Your task to perform on an android device: What's the top post on reddit right now? Image 0: 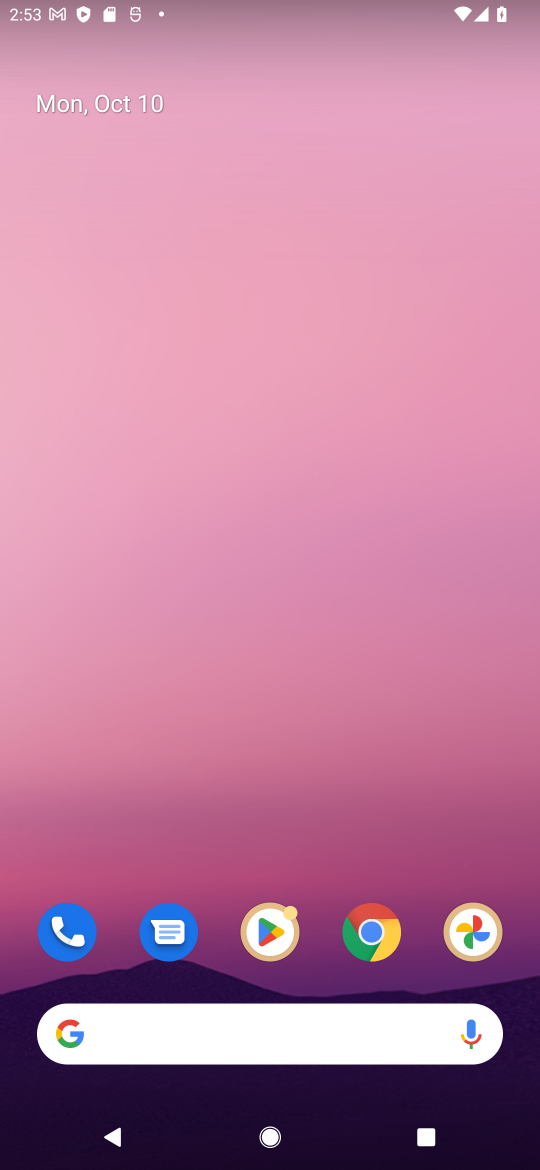
Step 0: press home button
Your task to perform on an android device: What's the top post on reddit right now? Image 1: 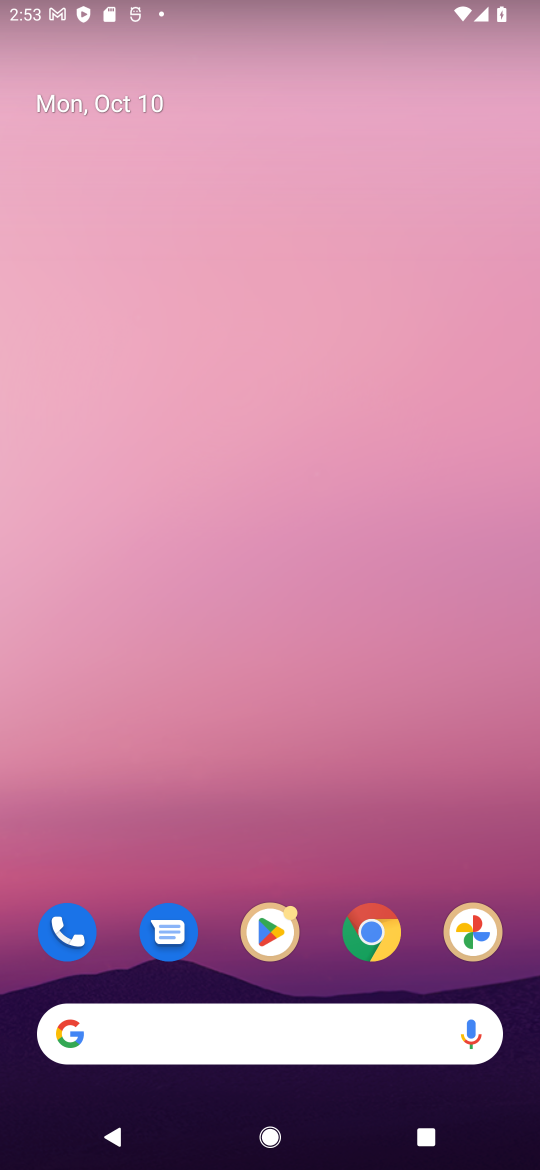
Step 1: click (343, 1032)
Your task to perform on an android device: What's the top post on reddit right now? Image 2: 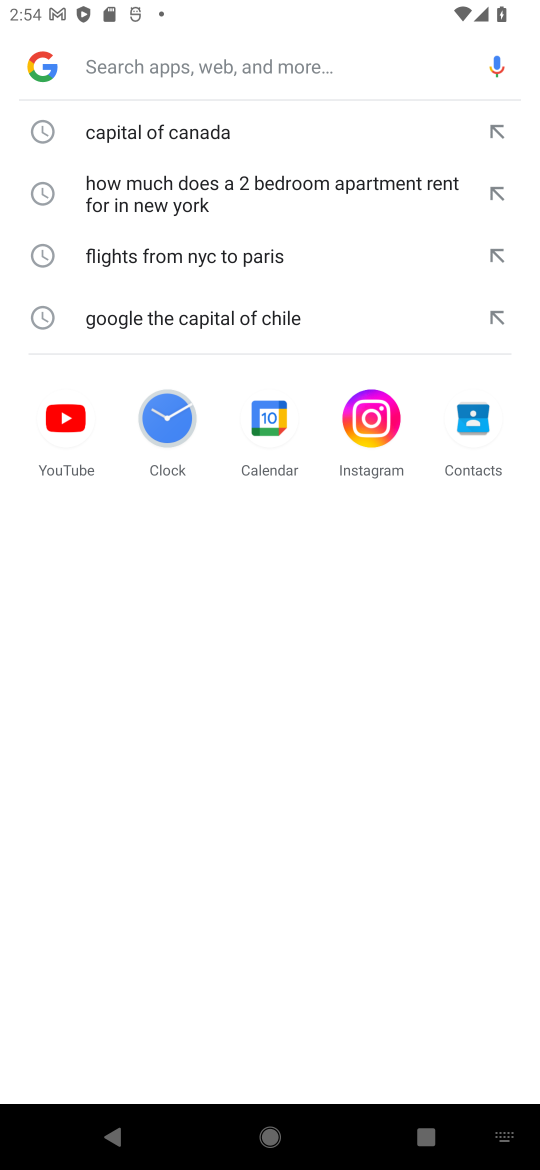
Step 2: type "What's the top post on reddit right now"
Your task to perform on an android device: What's the top post on reddit right now? Image 3: 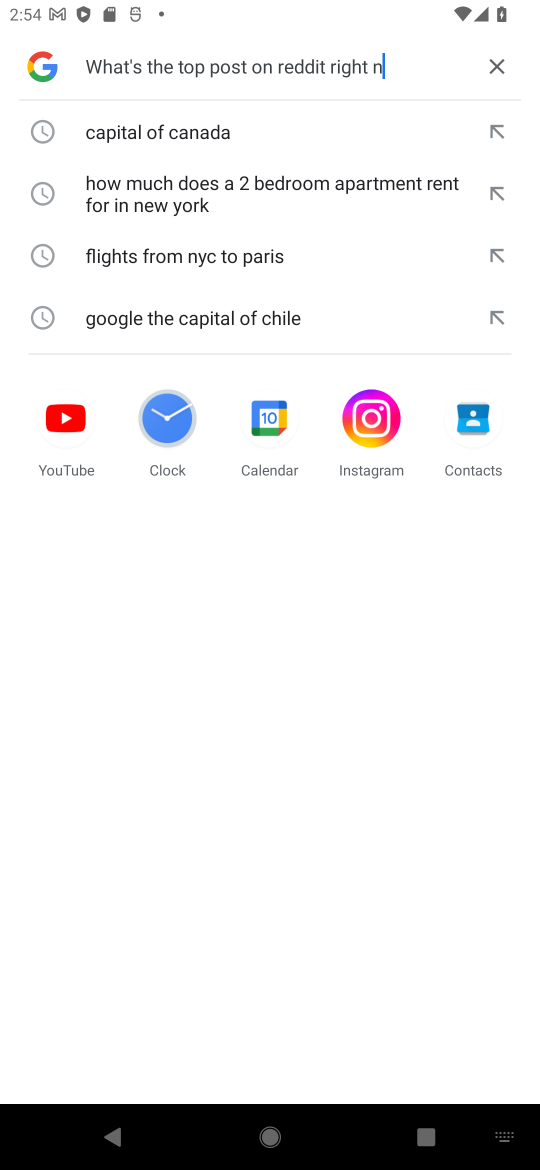
Step 3: press enter
Your task to perform on an android device: What's the top post on reddit right now? Image 4: 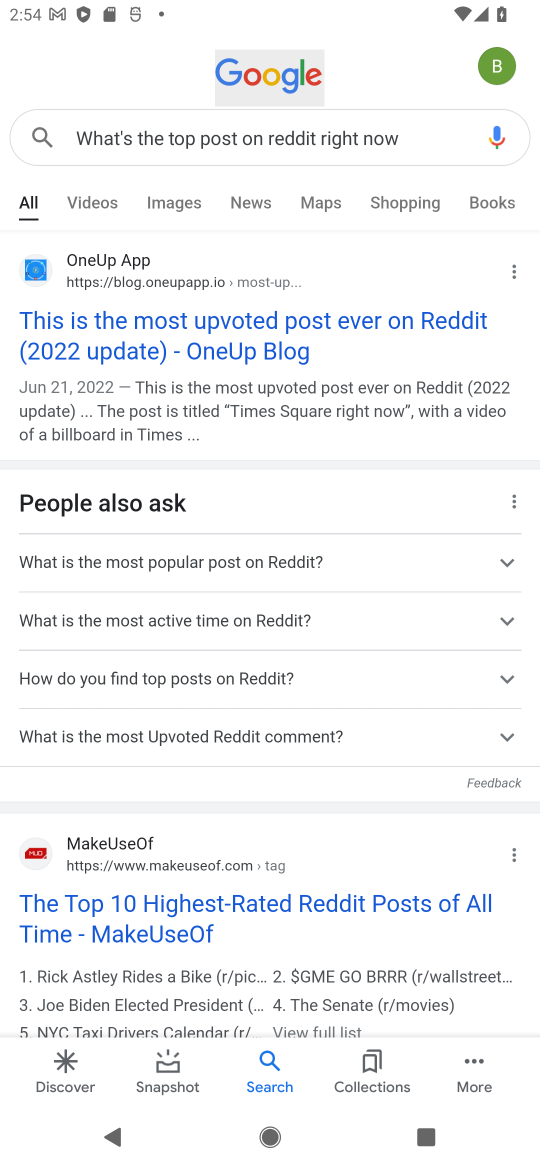
Step 4: click (362, 321)
Your task to perform on an android device: What's the top post on reddit right now? Image 5: 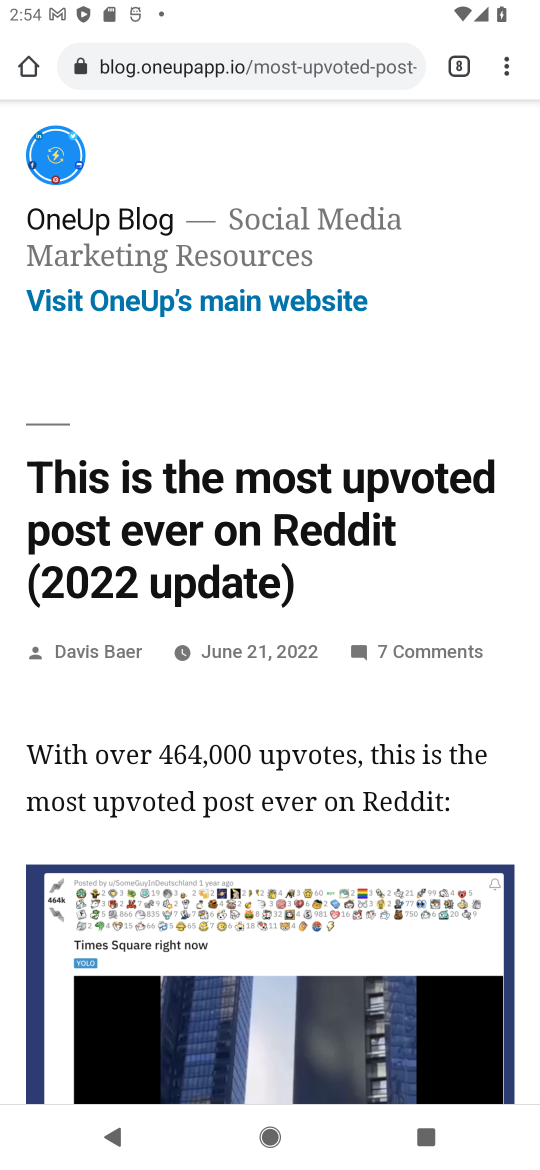
Step 5: task complete